Your task to perform on an android device: see sites visited before in the chrome app Image 0: 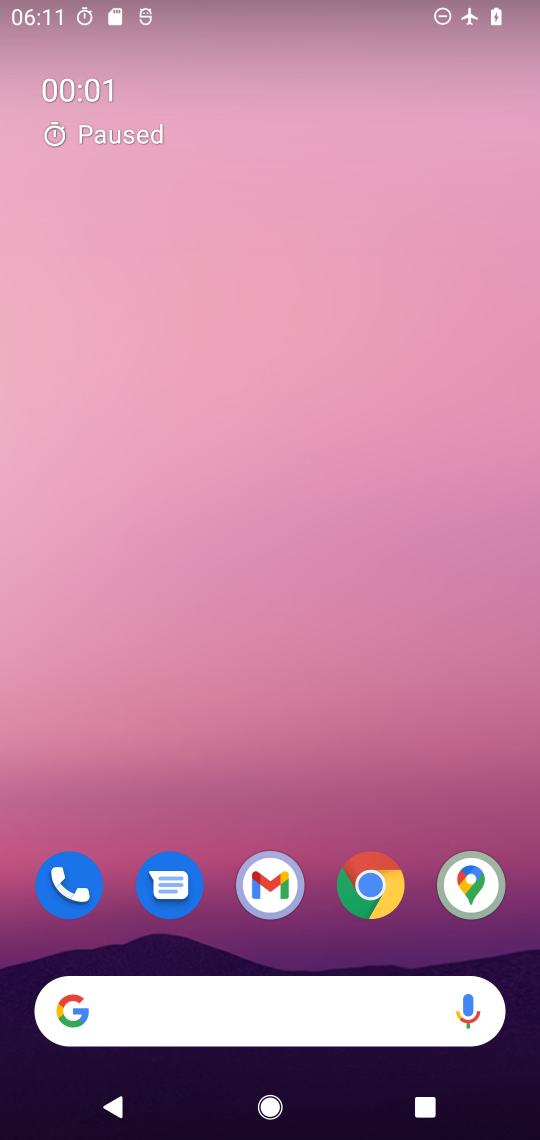
Step 0: drag from (264, 927) to (270, 76)
Your task to perform on an android device: see sites visited before in the chrome app Image 1: 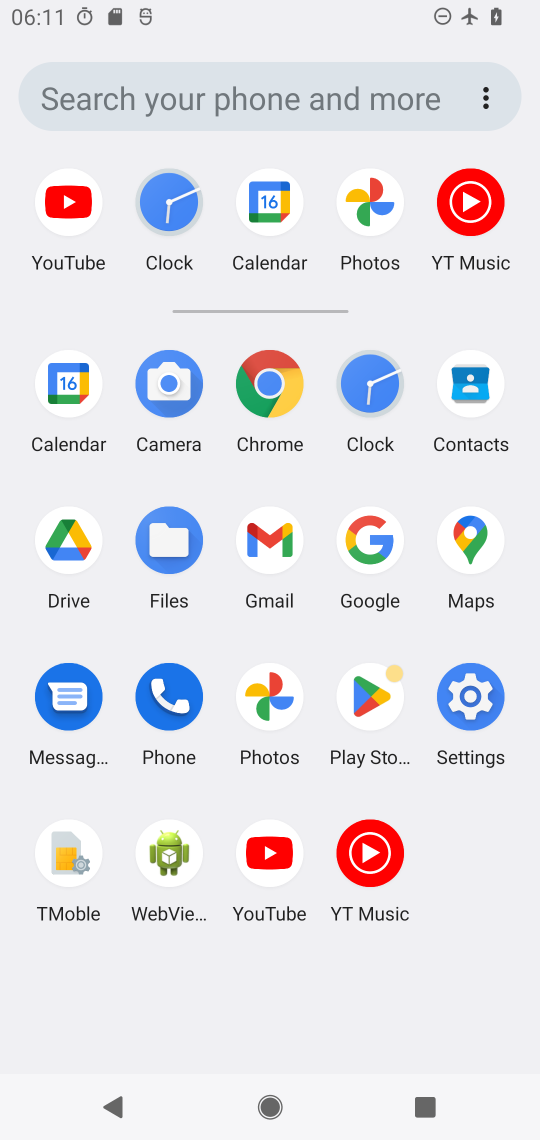
Step 1: click (273, 376)
Your task to perform on an android device: see sites visited before in the chrome app Image 2: 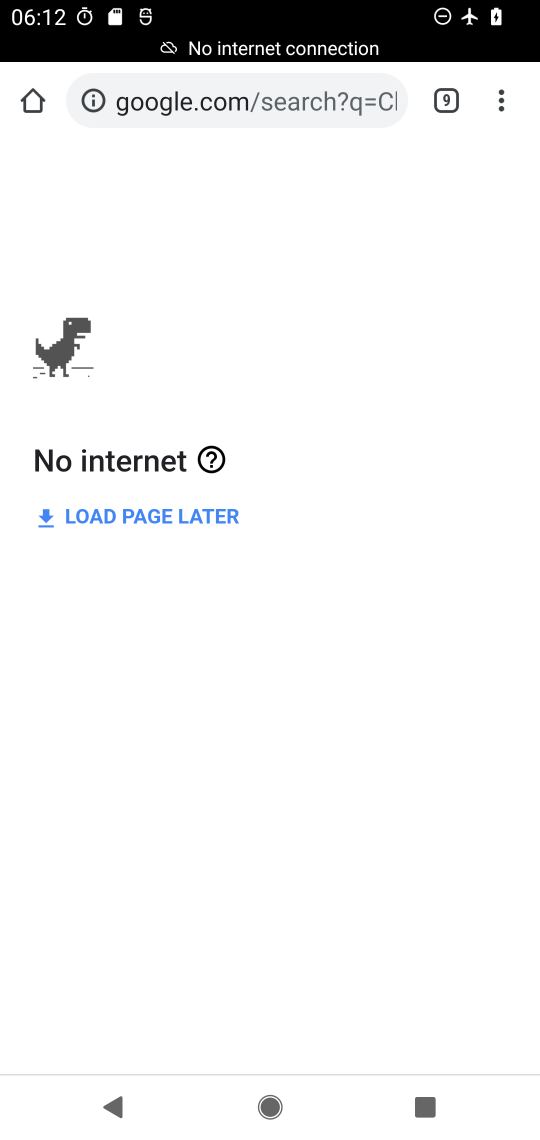
Step 2: click (511, 103)
Your task to perform on an android device: see sites visited before in the chrome app Image 3: 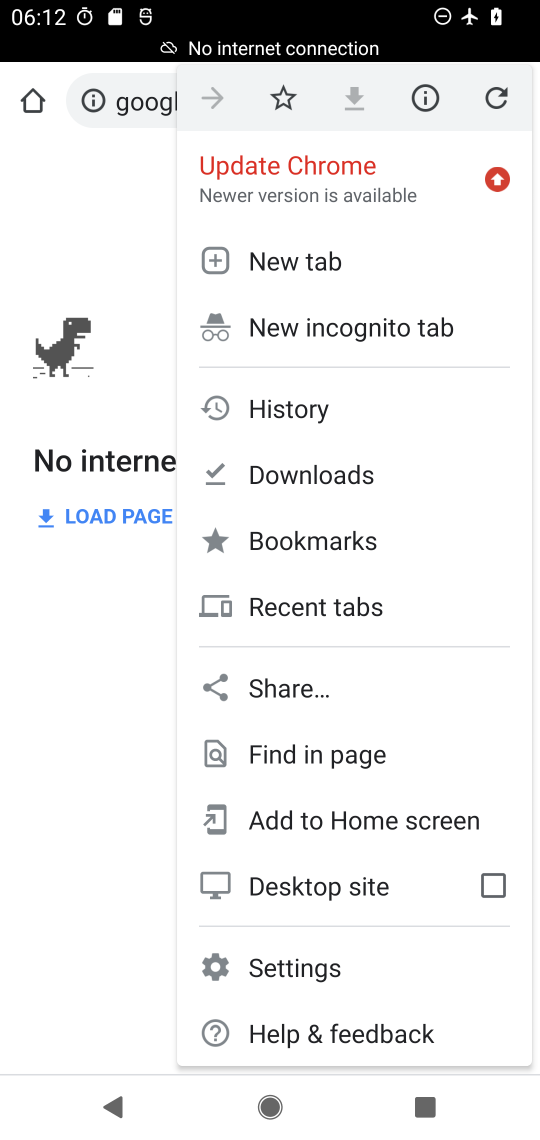
Step 3: click (356, 549)
Your task to perform on an android device: see sites visited before in the chrome app Image 4: 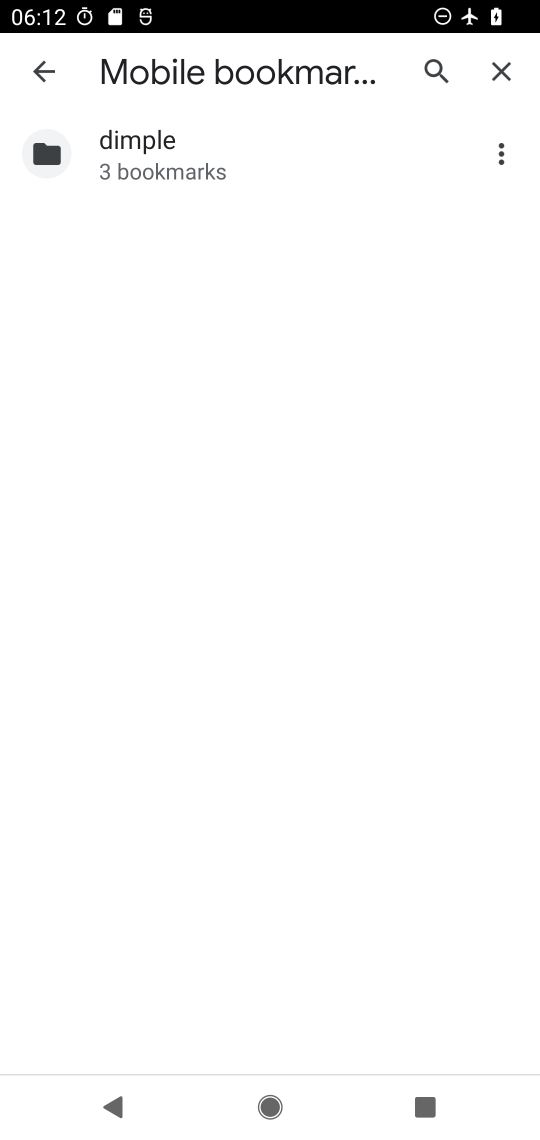
Step 4: click (43, 68)
Your task to perform on an android device: see sites visited before in the chrome app Image 5: 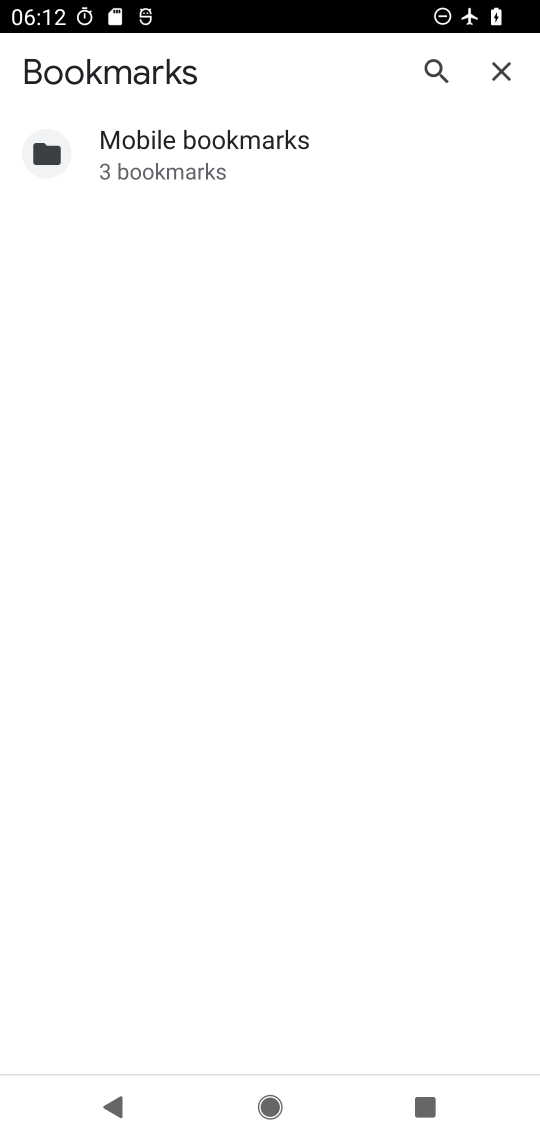
Step 5: click (520, 69)
Your task to perform on an android device: see sites visited before in the chrome app Image 6: 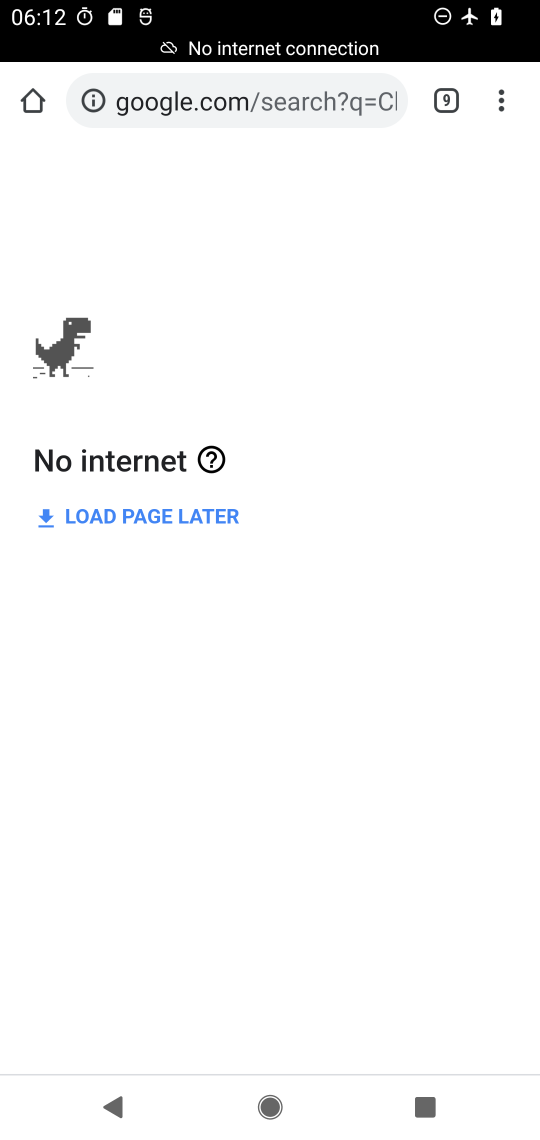
Step 6: click (509, 89)
Your task to perform on an android device: see sites visited before in the chrome app Image 7: 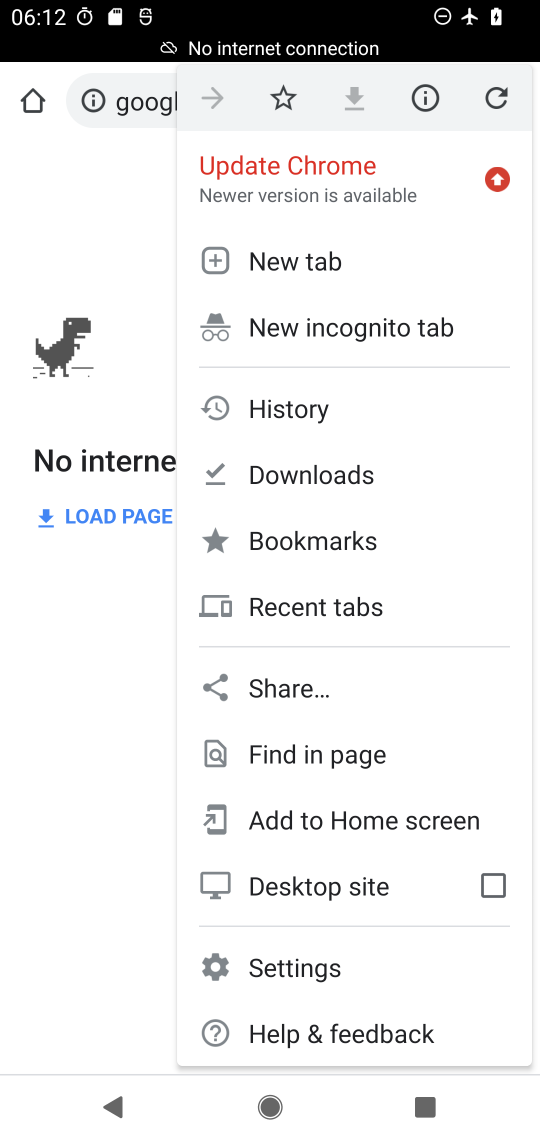
Step 7: click (295, 409)
Your task to perform on an android device: see sites visited before in the chrome app Image 8: 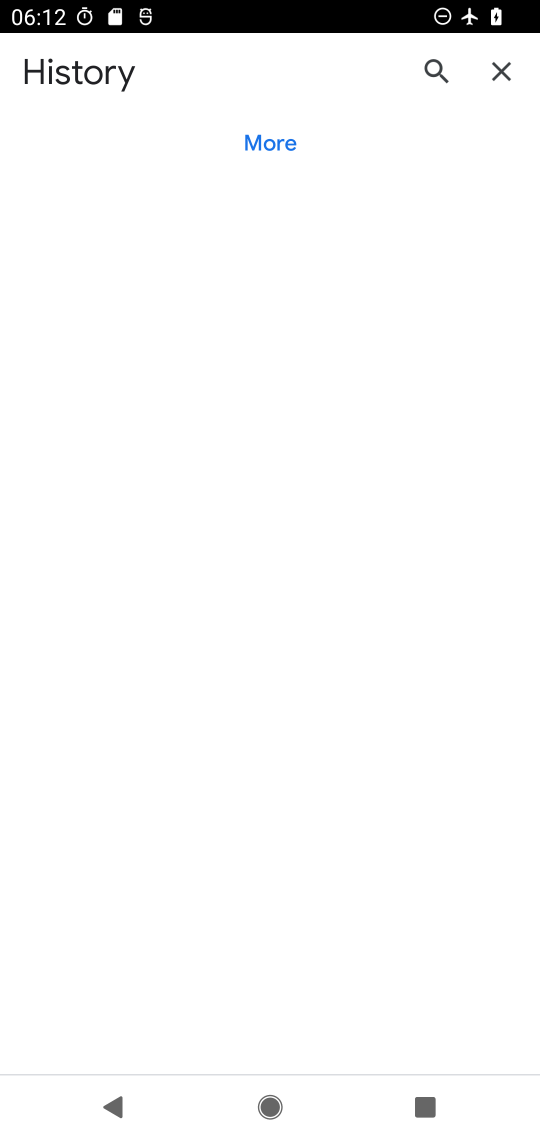
Step 8: task complete